Your task to perform on an android device: clear all cookies in the chrome app Image 0: 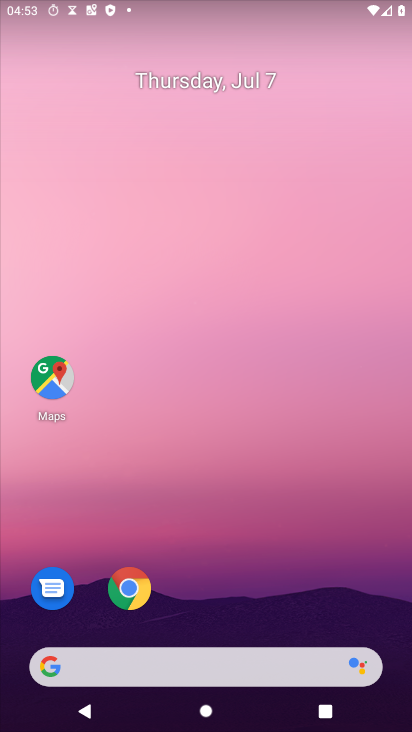
Step 0: press home button
Your task to perform on an android device: clear all cookies in the chrome app Image 1: 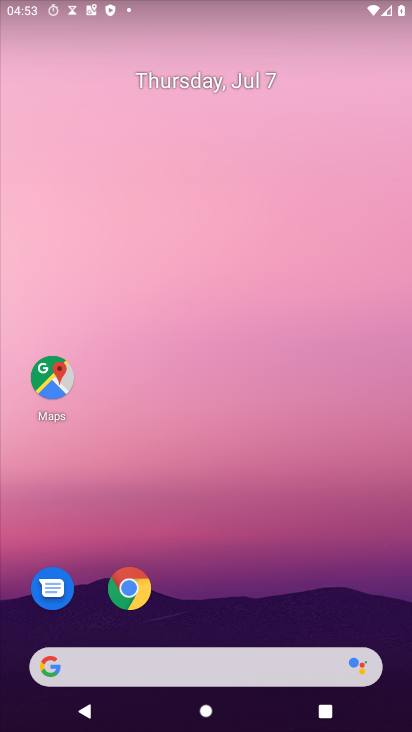
Step 1: drag from (247, 610) to (206, 104)
Your task to perform on an android device: clear all cookies in the chrome app Image 2: 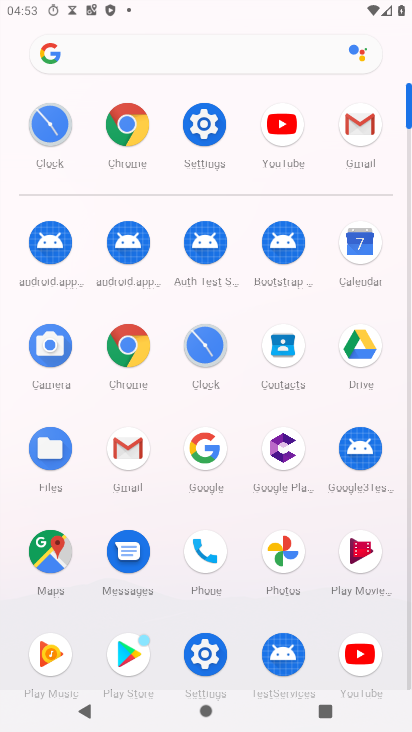
Step 2: click (126, 129)
Your task to perform on an android device: clear all cookies in the chrome app Image 3: 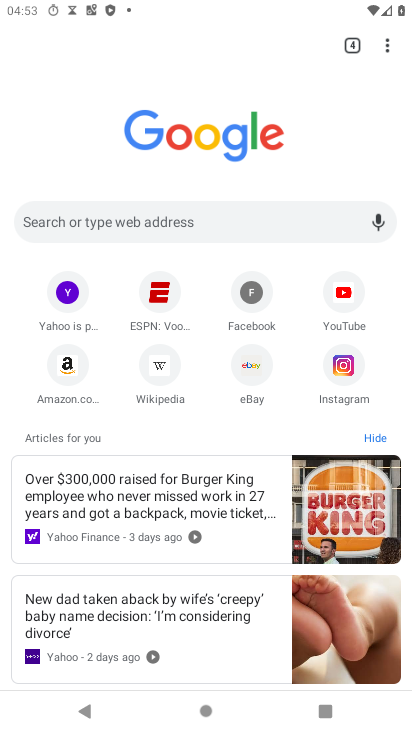
Step 3: drag from (388, 41) to (231, 383)
Your task to perform on an android device: clear all cookies in the chrome app Image 4: 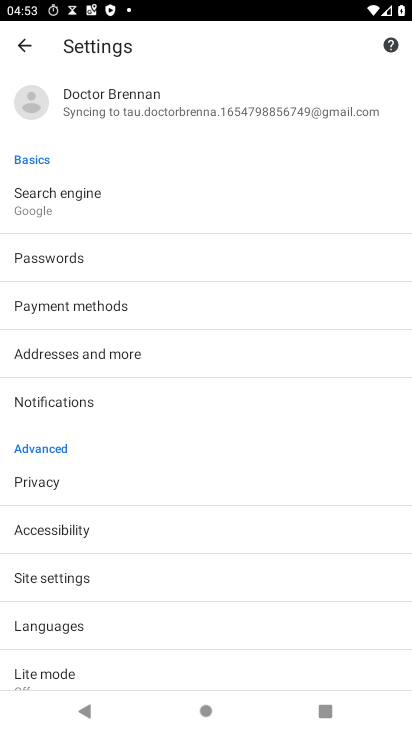
Step 4: click (49, 481)
Your task to perform on an android device: clear all cookies in the chrome app Image 5: 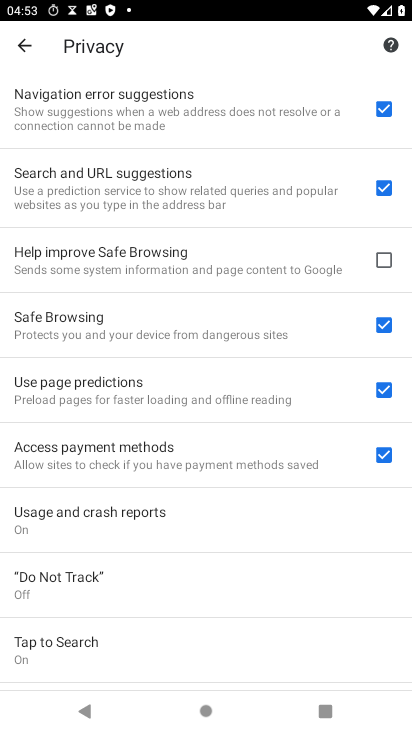
Step 5: drag from (264, 636) to (229, 63)
Your task to perform on an android device: clear all cookies in the chrome app Image 6: 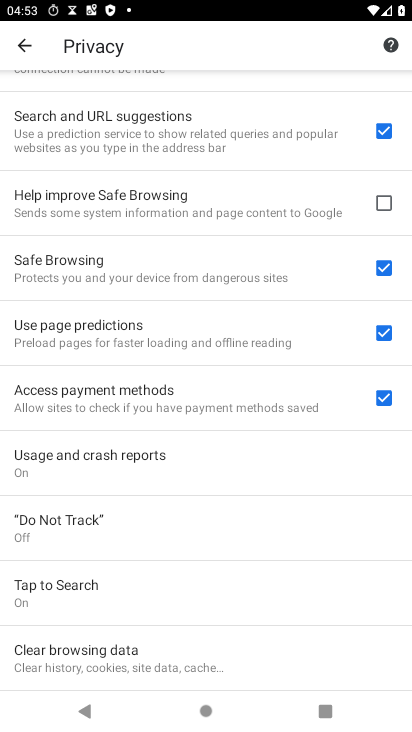
Step 6: click (79, 663)
Your task to perform on an android device: clear all cookies in the chrome app Image 7: 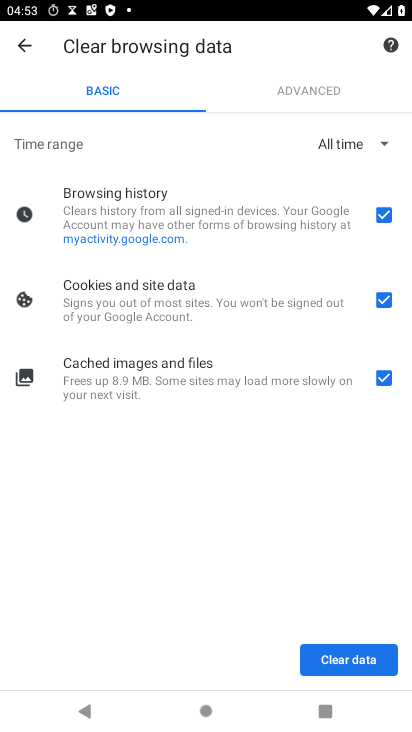
Step 7: click (383, 221)
Your task to perform on an android device: clear all cookies in the chrome app Image 8: 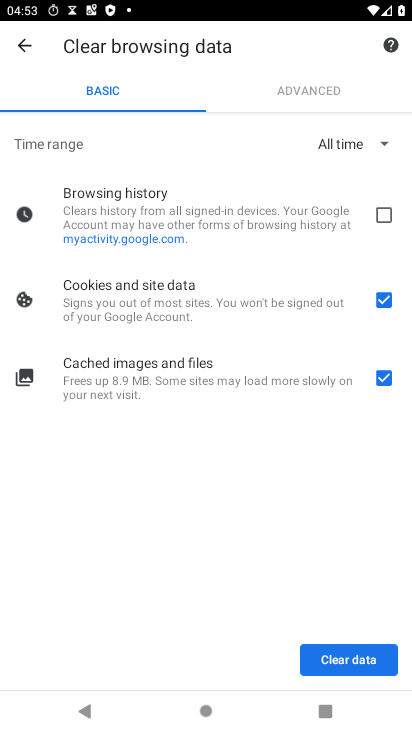
Step 8: click (388, 379)
Your task to perform on an android device: clear all cookies in the chrome app Image 9: 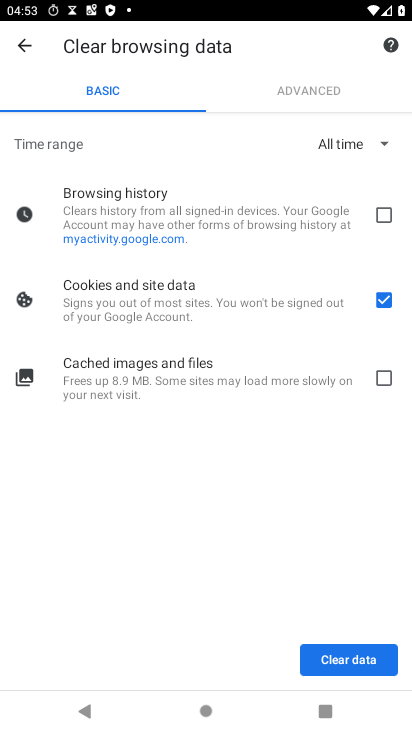
Step 9: click (356, 658)
Your task to perform on an android device: clear all cookies in the chrome app Image 10: 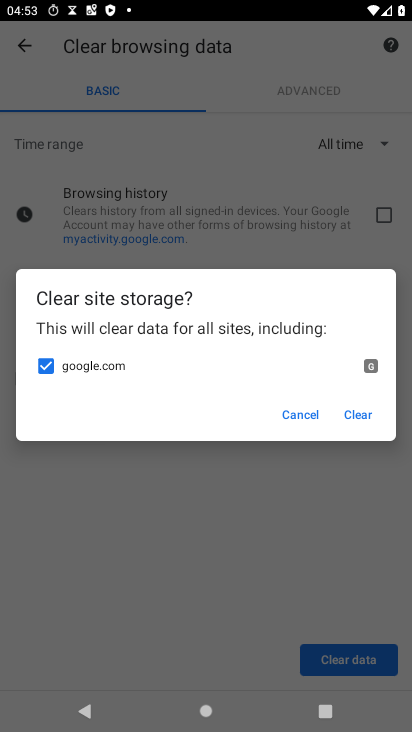
Step 10: click (353, 416)
Your task to perform on an android device: clear all cookies in the chrome app Image 11: 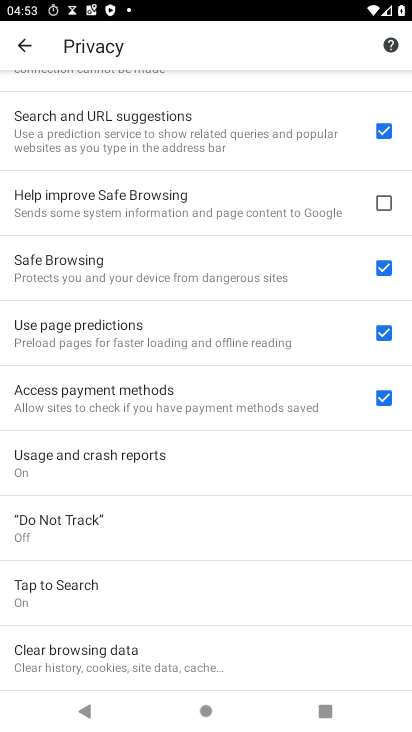
Step 11: task complete